Your task to perform on an android device: Play the last video I watched on Youtube Image 0: 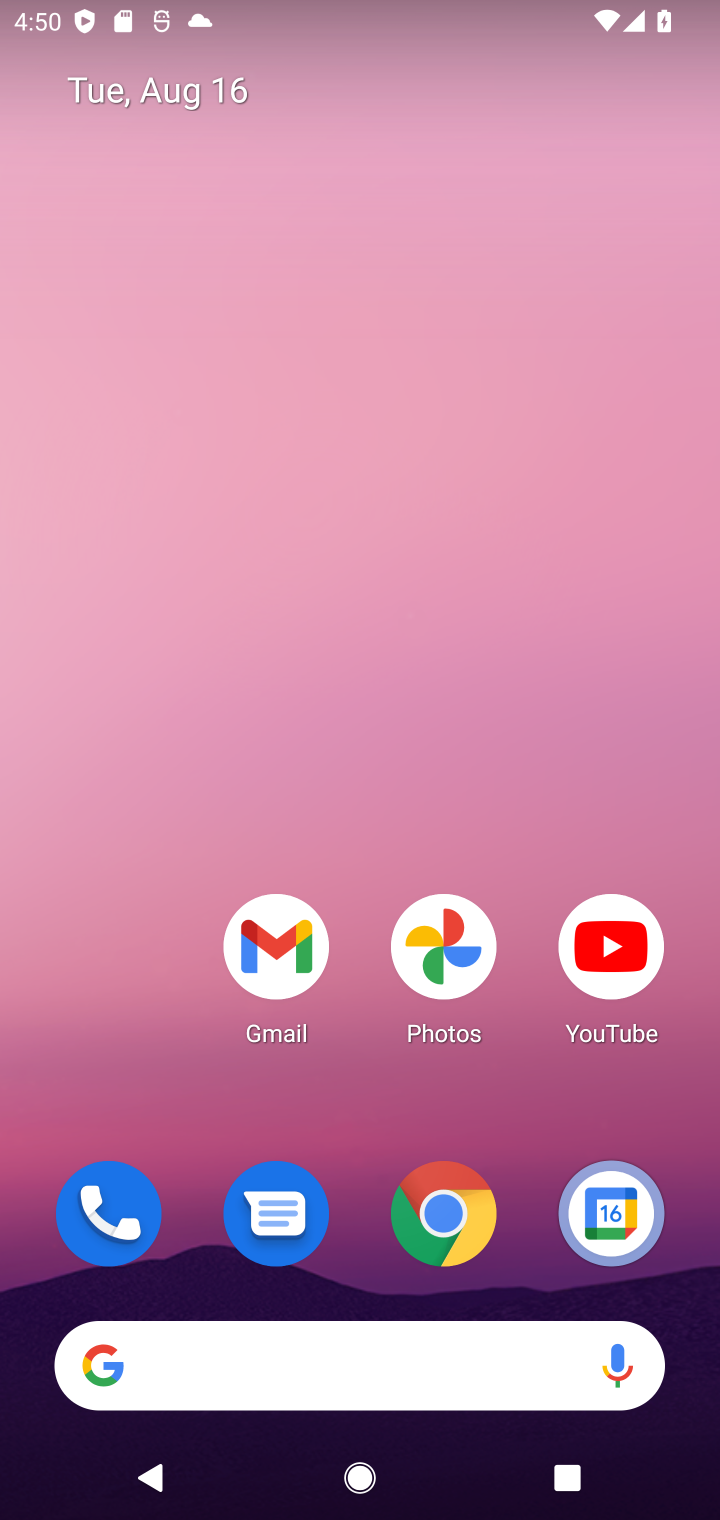
Step 0: drag from (331, 73) to (100, 88)
Your task to perform on an android device: Play the last video I watched on Youtube Image 1: 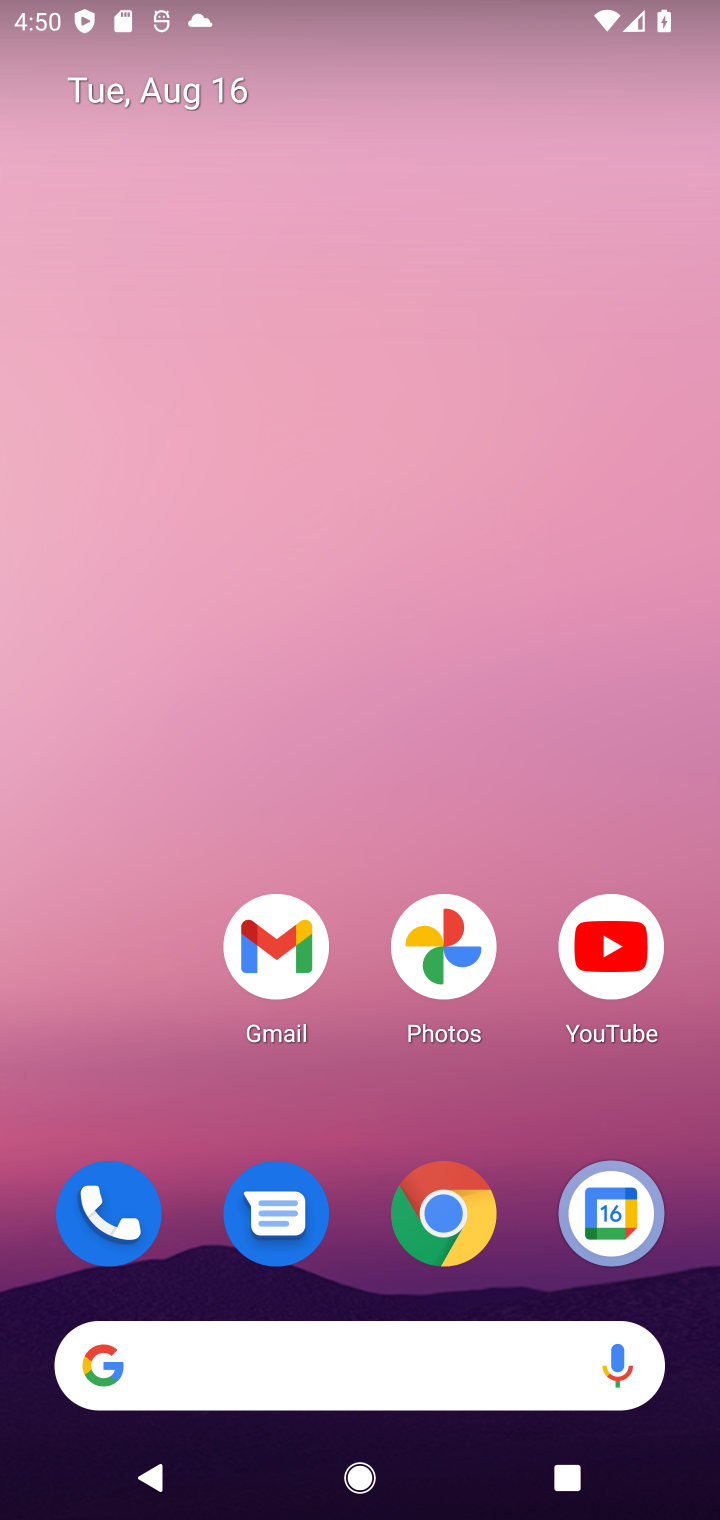
Step 1: drag from (367, 1116) to (574, 8)
Your task to perform on an android device: Play the last video I watched on Youtube Image 2: 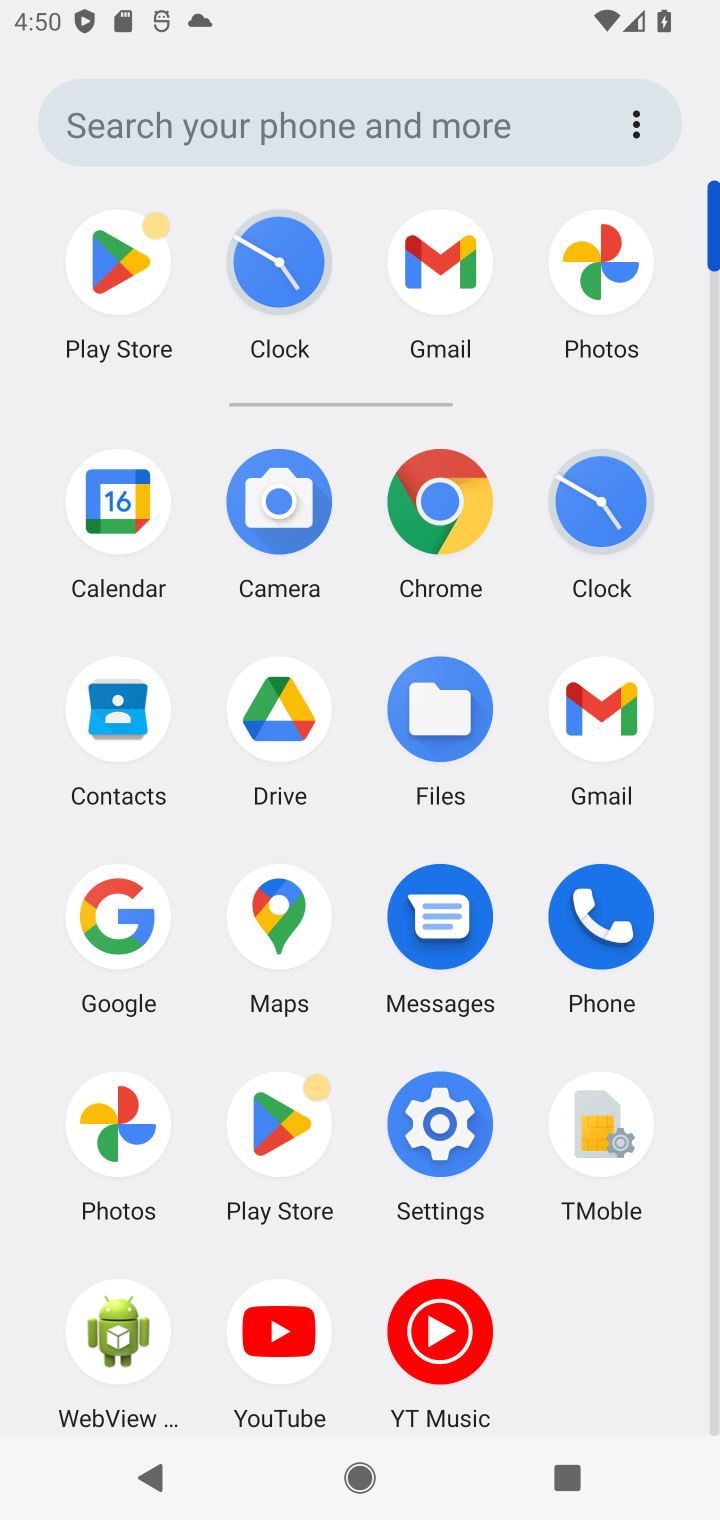
Step 2: click (298, 1310)
Your task to perform on an android device: Play the last video I watched on Youtube Image 3: 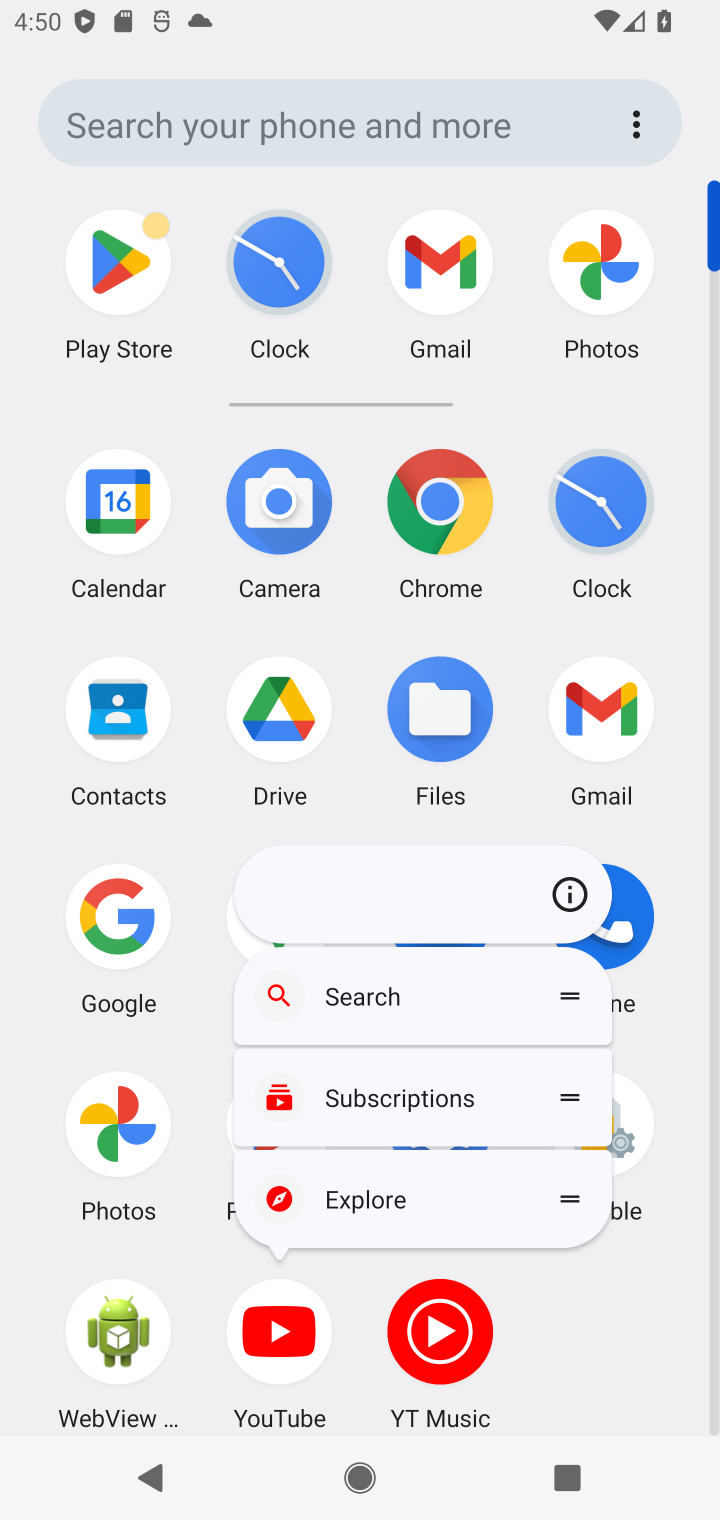
Step 3: click (273, 1346)
Your task to perform on an android device: Play the last video I watched on Youtube Image 4: 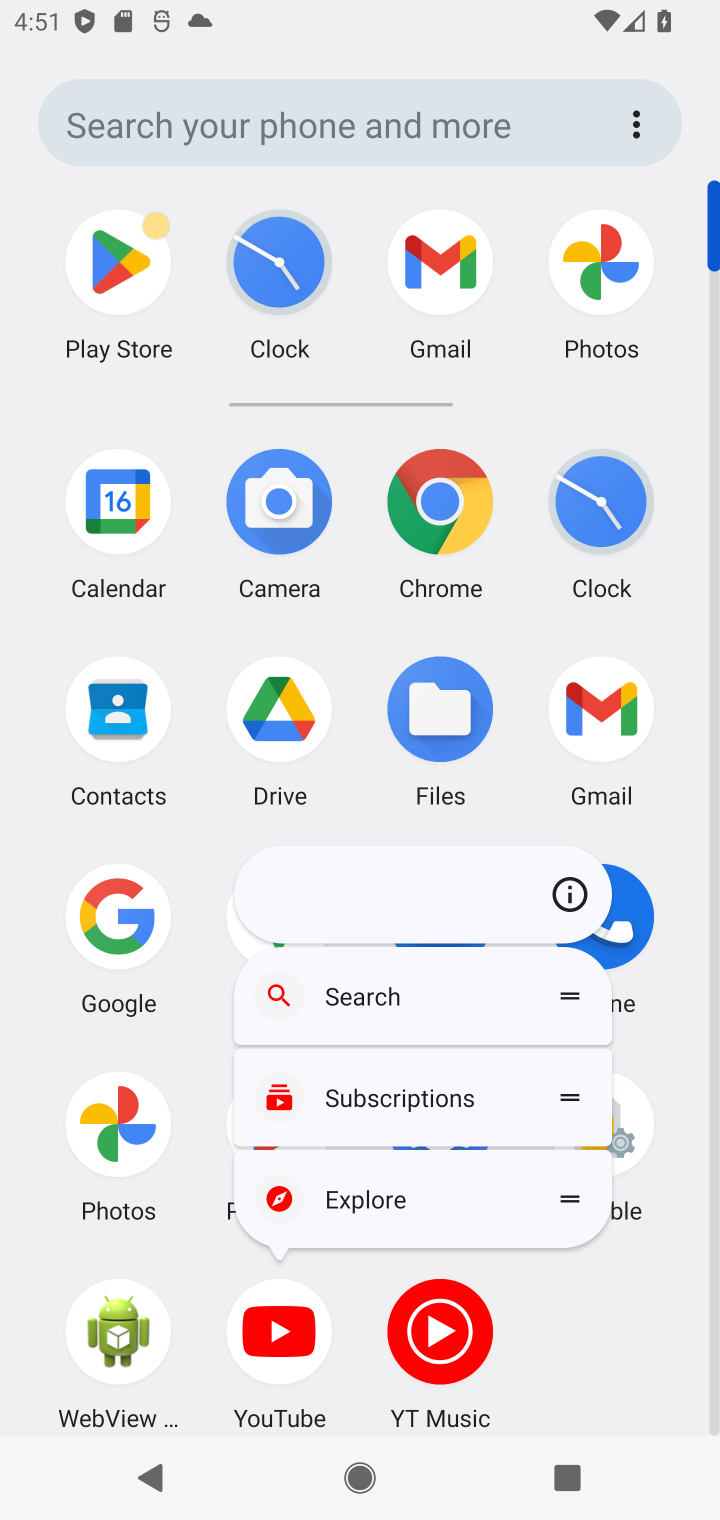
Step 4: click (283, 1351)
Your task to perform on an android device: Play the last video I watched on Youtube Image 5: 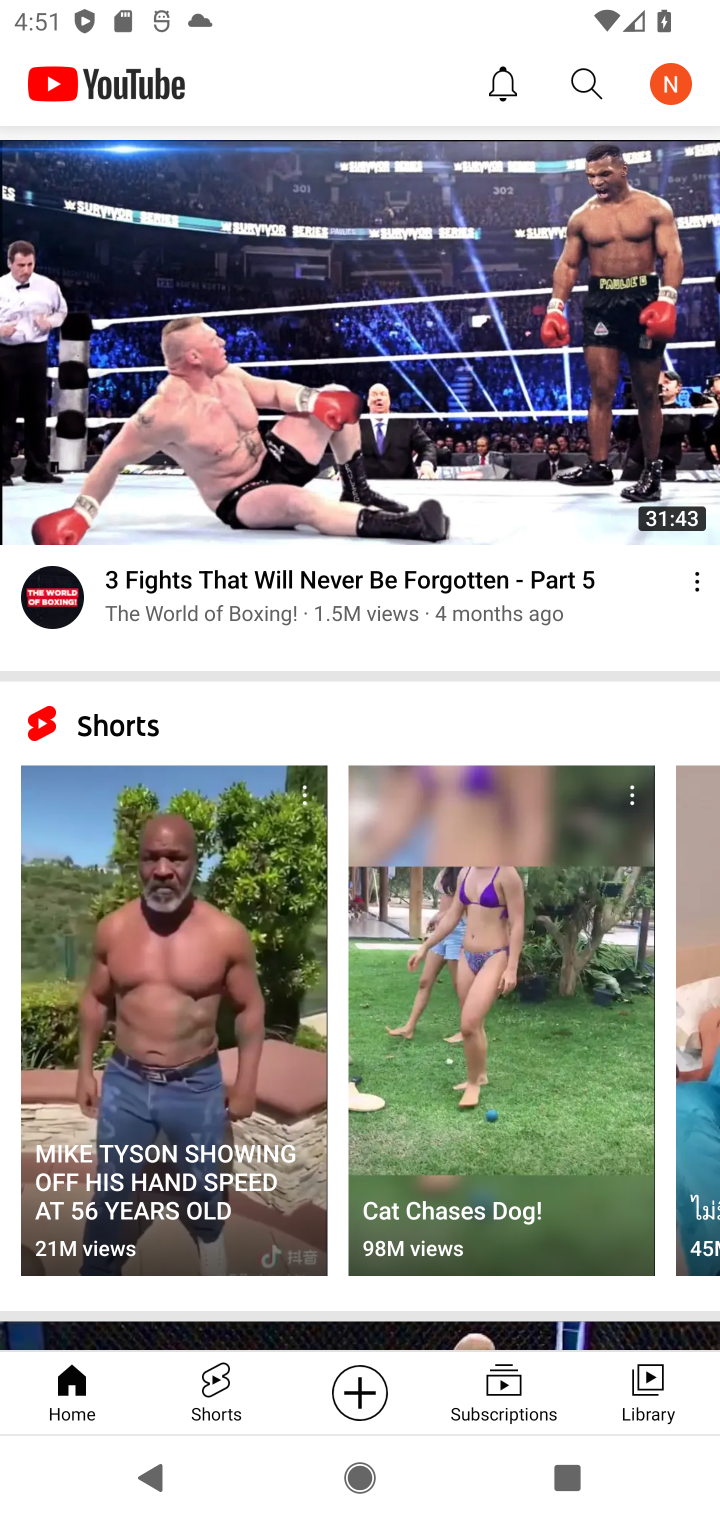
Step 5: click (662, 1372)
Your task to perform on an android device: Play the last video I watched on Youtube Image 6: 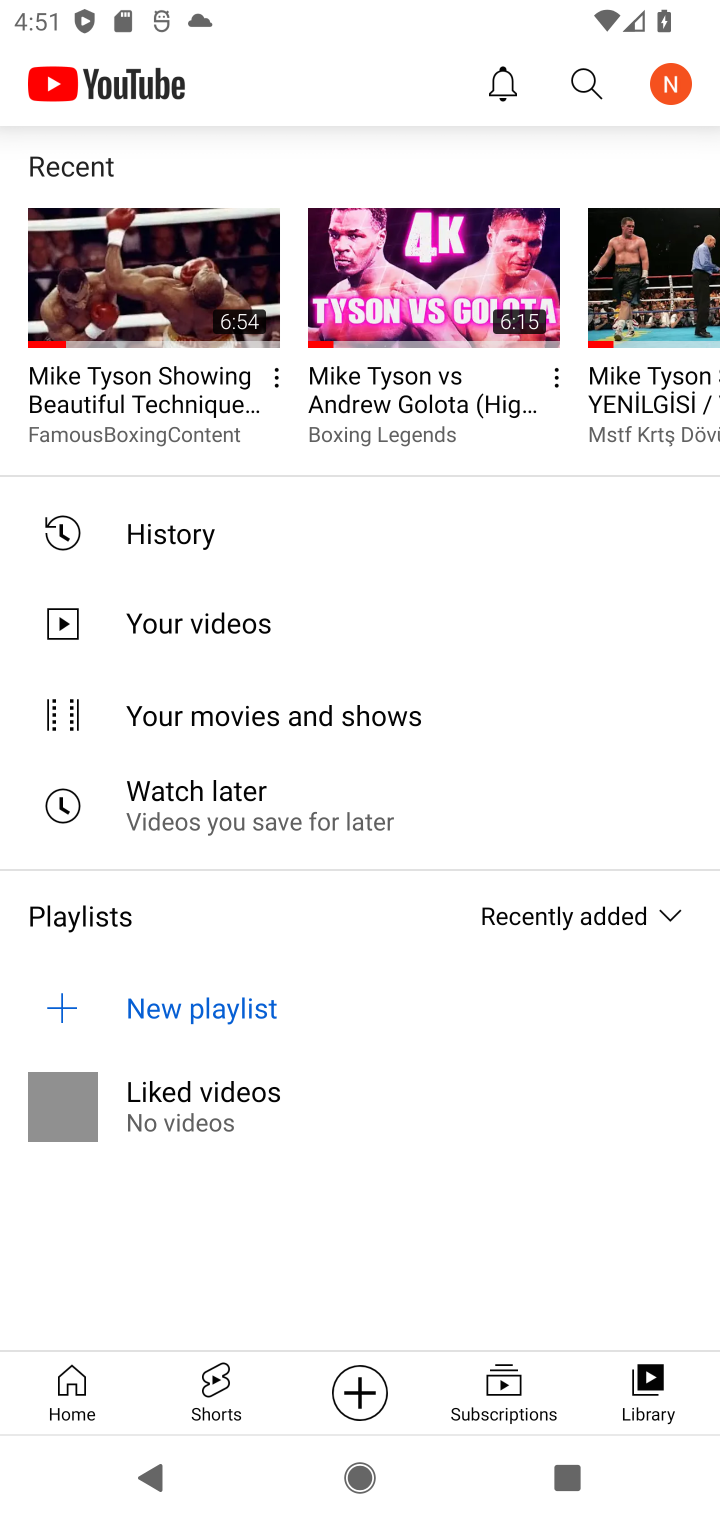
Step 6: click (133, 291)
Your task to perform on an android device: Play the last video I watched on Youtube Image 7: 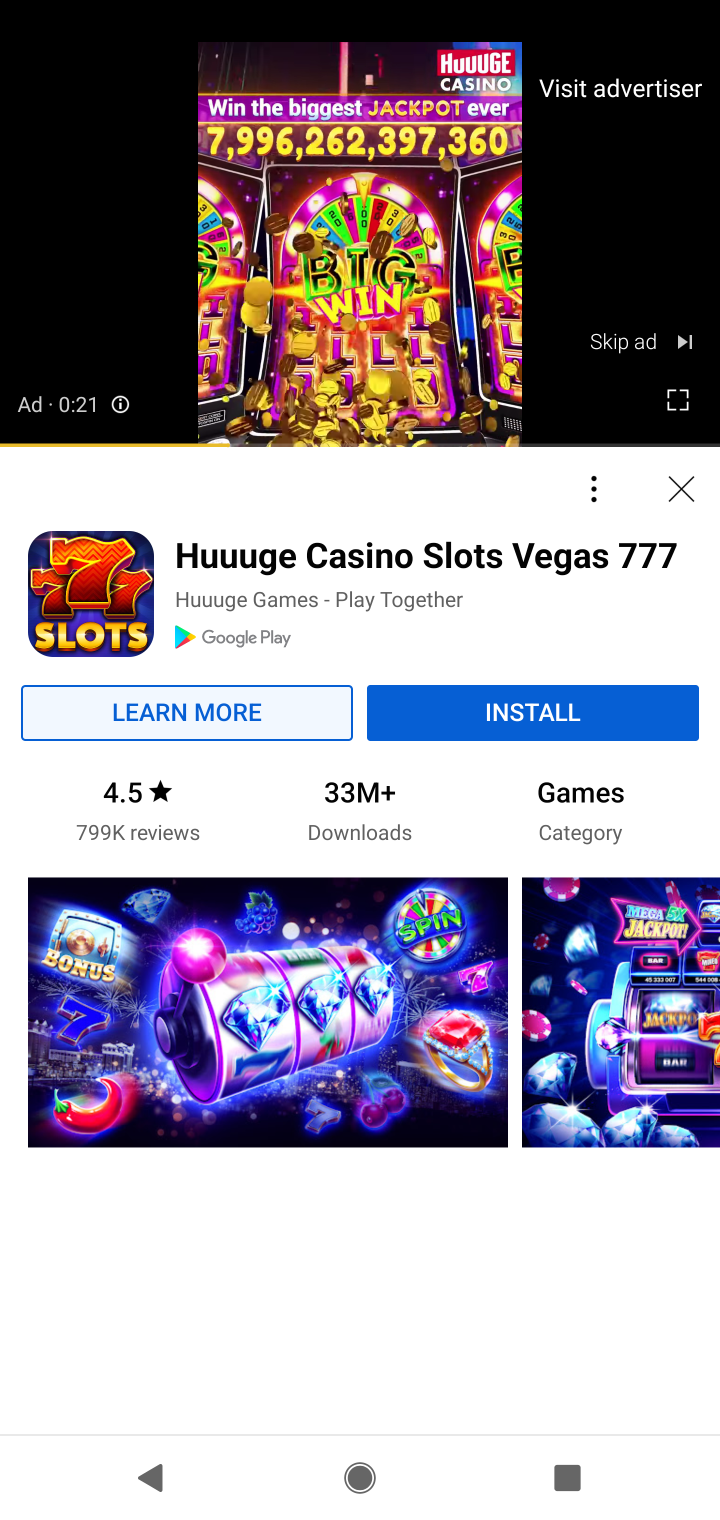
Step 7: click (643, 339)
Your task to perform on an android device: Play the last video I watched on Youtube Image 8: 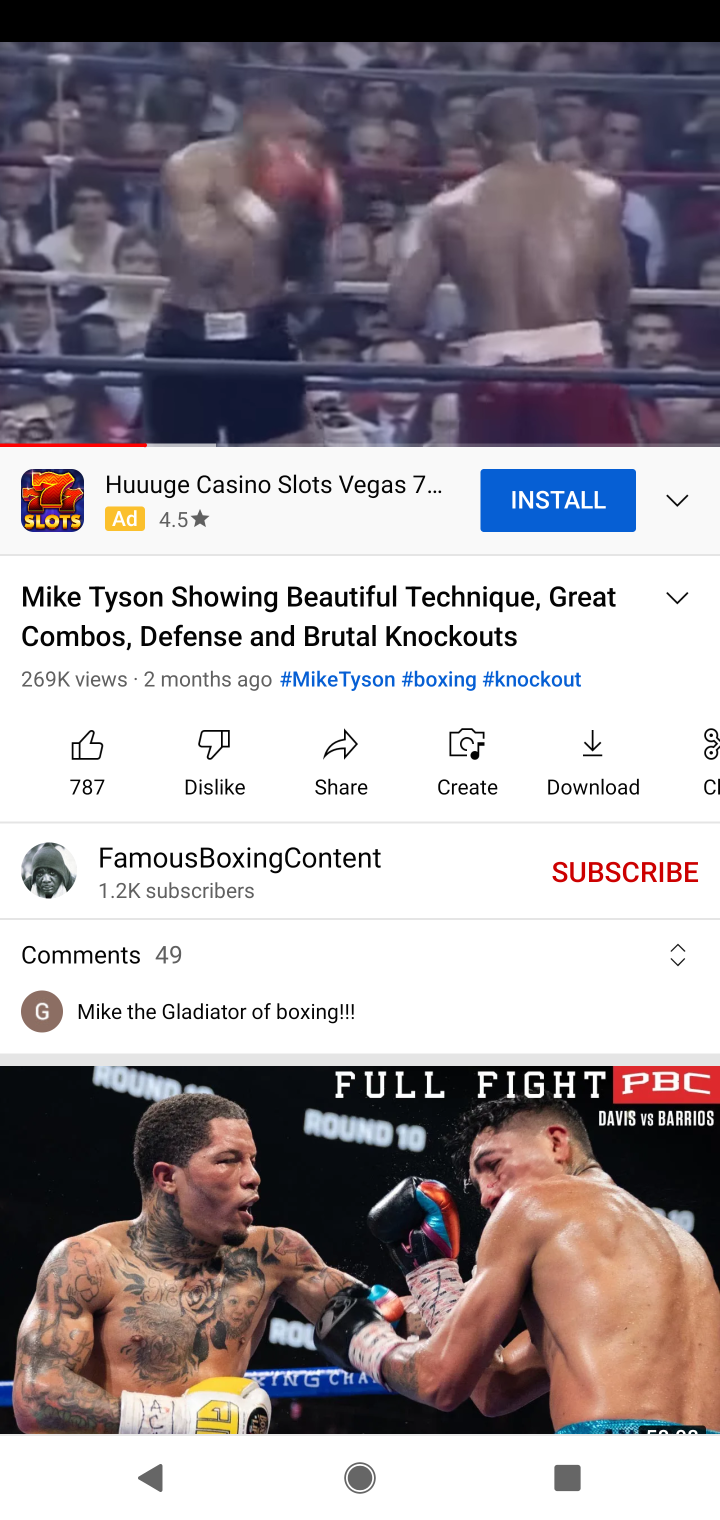
Step 8: task complete